Your task to perform on an android device: Open Maps and search for coffee Image 0: 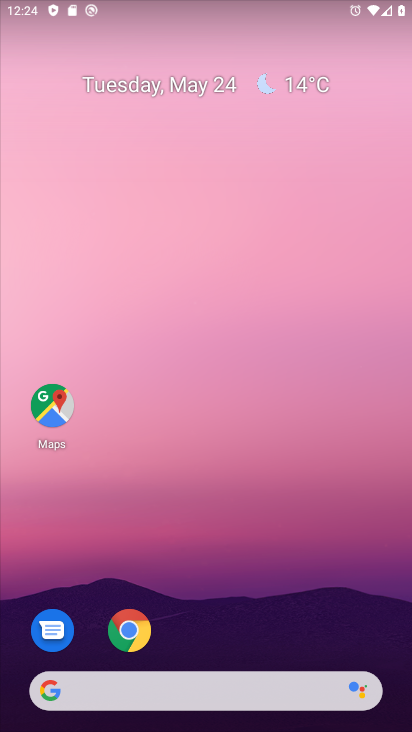
Step 0: drag from (376, 616) to (362, 131)
Your task to perform on an android device: Open Maps and search for coffee Image 1: 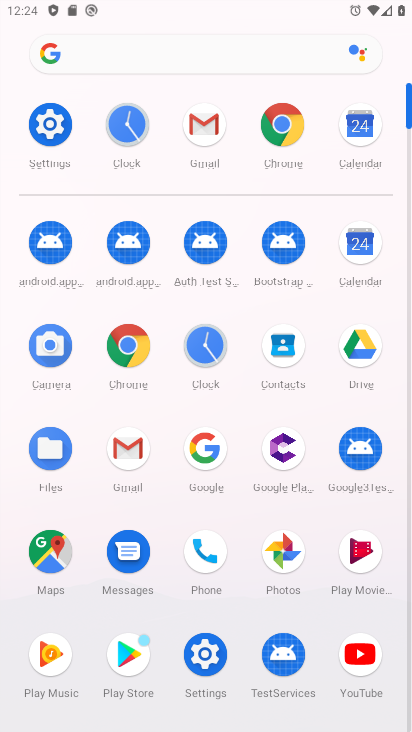
Step 1: click (39, 563)
Your task to perform on an android device: Open Maps and search for coffee Image 2: 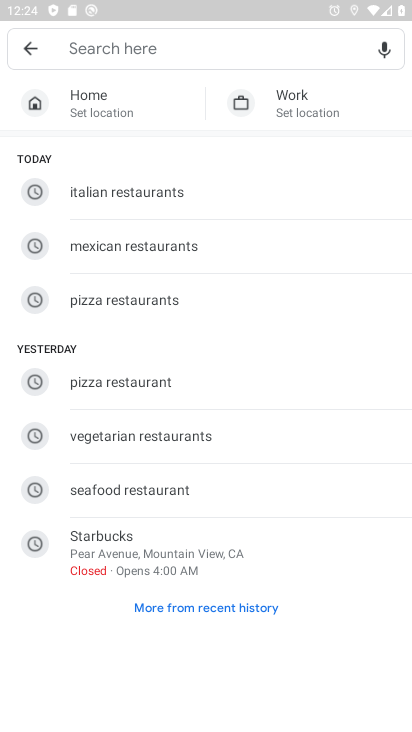
Step 2: click (95, 56)
Your task to perform on an android device: Open Maps and search for coffee Image 3: 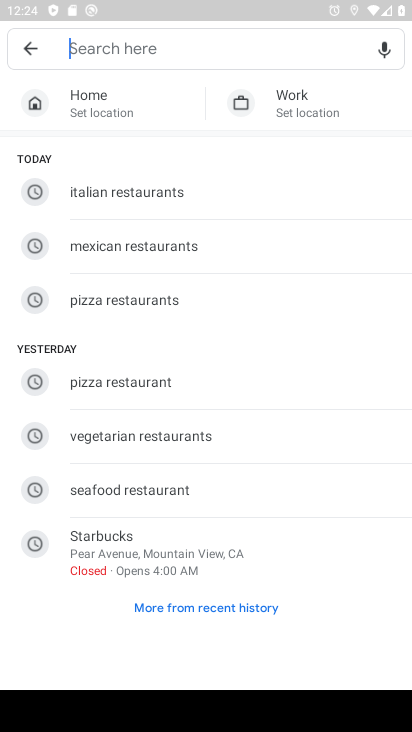
Step 3: type "coffee"
Your task to perform on an android device: Open Maps and search for coffee Image 4: 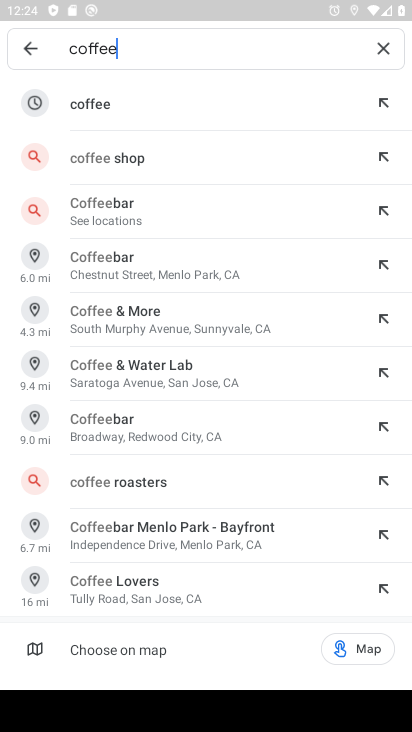
Step 4: click (84, 115)
Your task to perform on an android device: Open Maps and search for coffee Image 5: 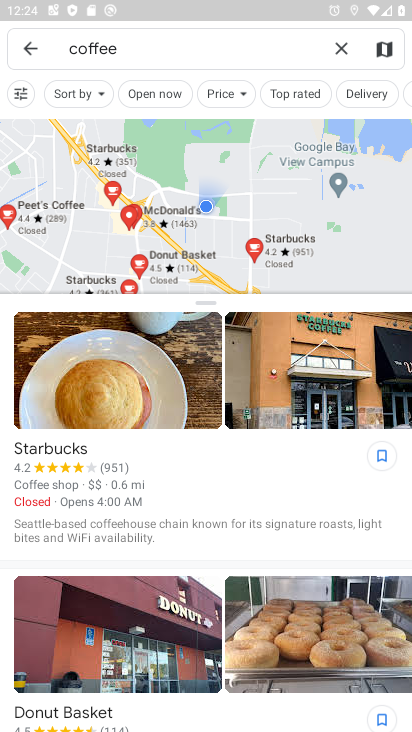
Step 5: task complete